Your task to perform on an android device: Open Maps and search for coffee Image 0: 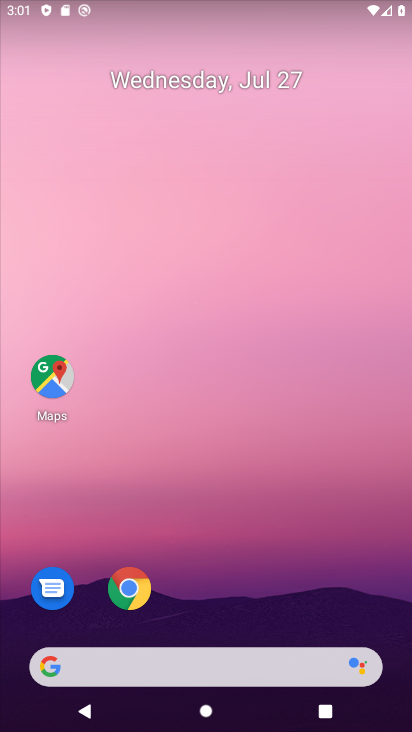
Step 0: drag from (281, 629) to (223, 185)
Your task to perform on an android device: Open Maps and search for coffee Image 1: 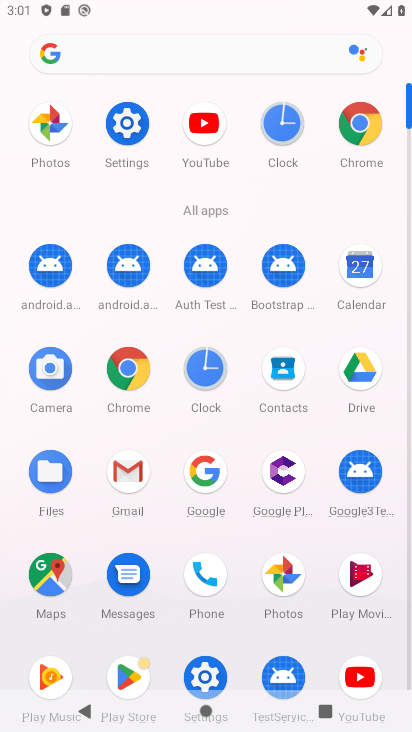
Step 1: click (52, 582)
Your task to perform on an android device: Open Maps and search for coffee Image 2: 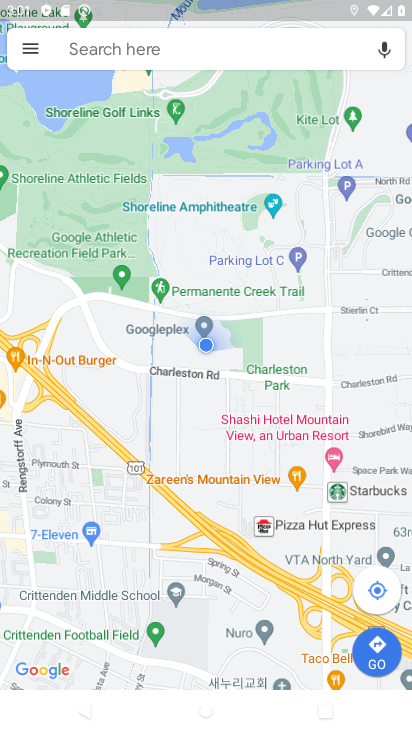
Step 2: click (211, 56)
Your task to perform on an android device: Open Maps and search for coffee Image 3: 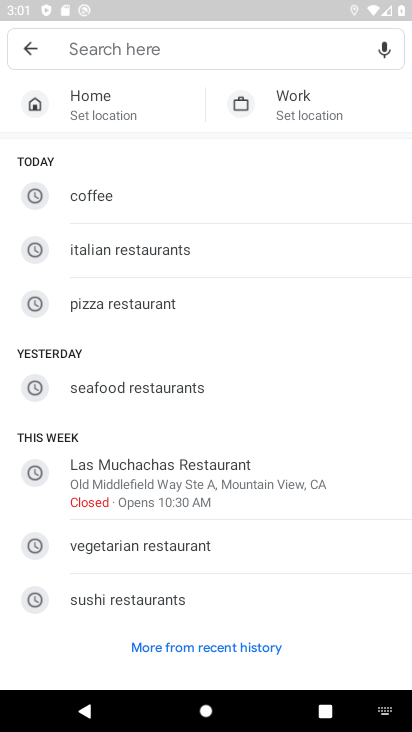
Step 3: click (218, 197)
Your task to perform on an android device: Open Maps and search for coffee Image 4: 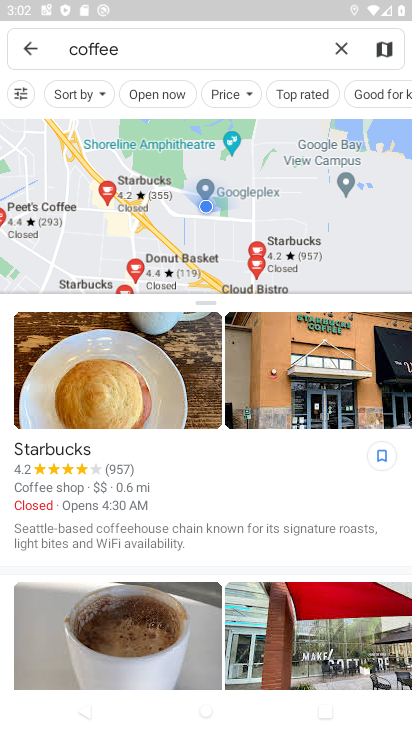
Step 4: task complete